Your task to perform on an android device: Find coffee shops on Maps Image 0: 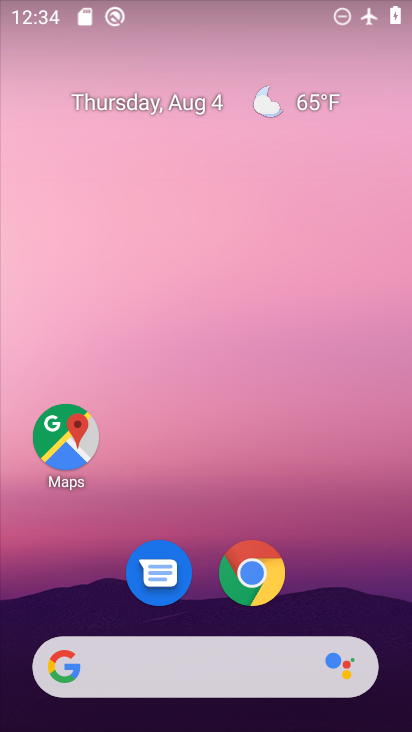
Step 0: drag from (341, 555) to (315, 261)
Your task to perform on an android device: Find coffee shops on Maps Image 1: 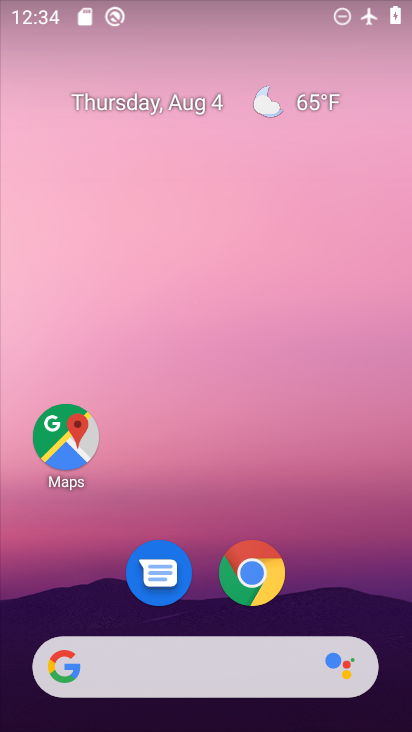
Step 1: drag from (333, 566) to (316, 72)
Your task to perform on an android device: Find coffee shops on Maps Image 2: 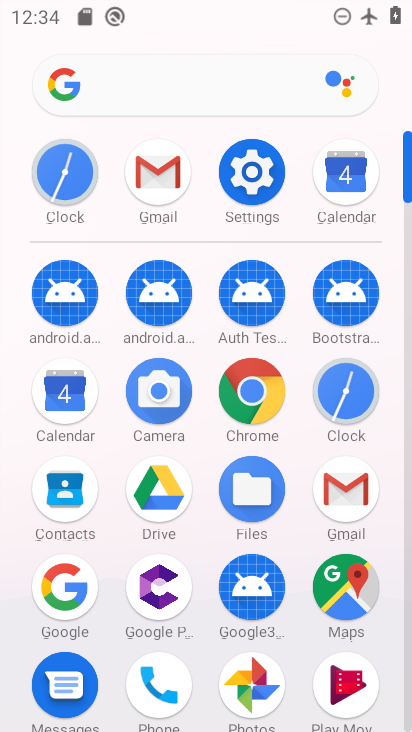
Step 2: click (341, 576)
Your task to perform on an android device: Find coffee shops on Maps Image 3: 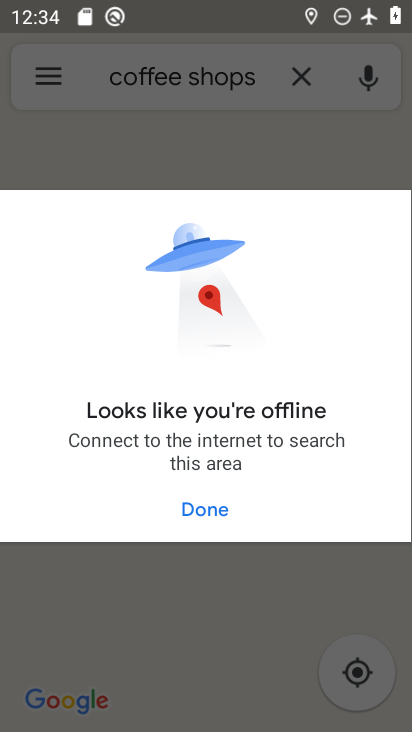
Step 3: click (205, 497)
Your task to perform on an android device: Find coffee shops on Maps Image 4: 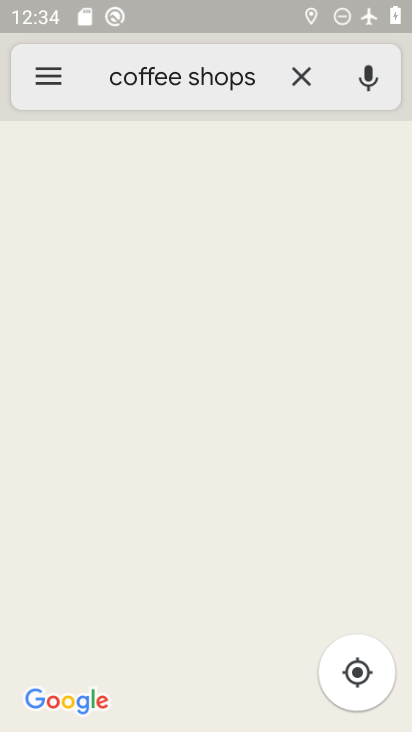
Step 4: click (226, 59)
Your task to perform on an android device: Find coffee shops on Maps Image 5: 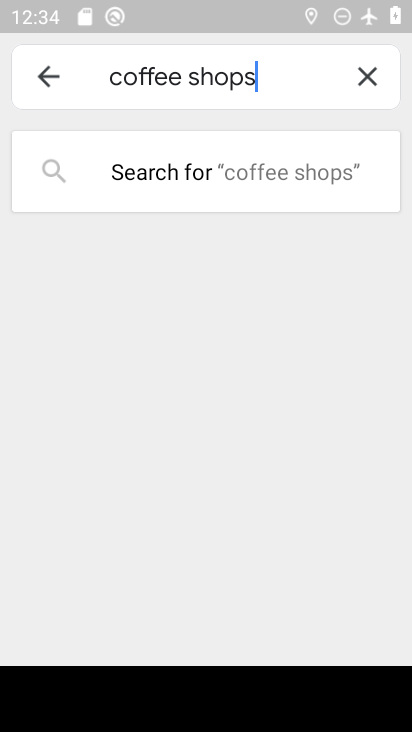
Step 5: click (310, 171)
Your task to perform on an android device: Find coffee shops on Maps Image 6: 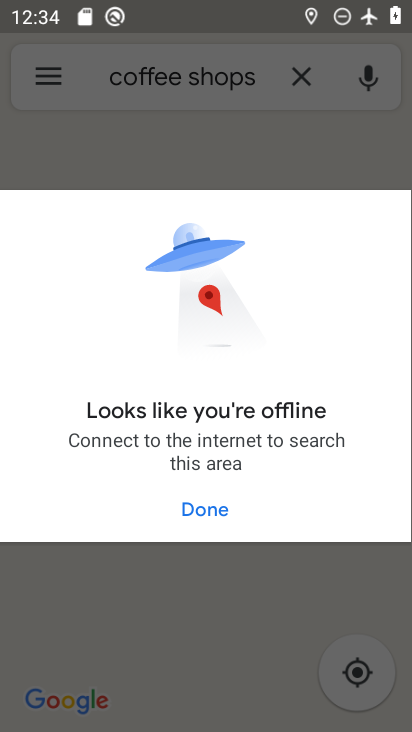
Step 6: task complete